Your task to perform on an android device: Open internet settings Image 0: 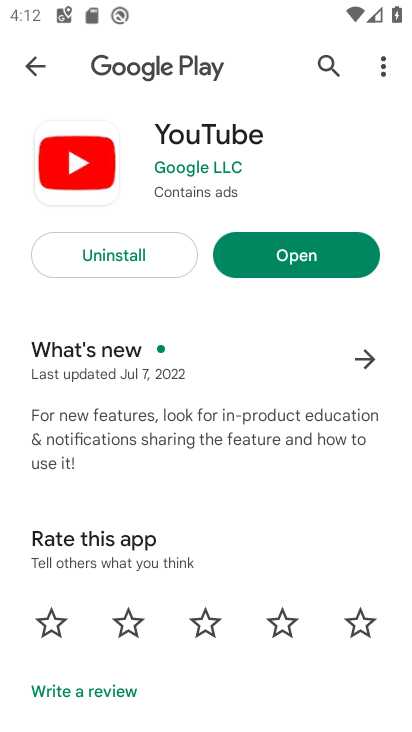
Step 0: press home button
Your task to perform on an android device: Open internet settings Image 1: 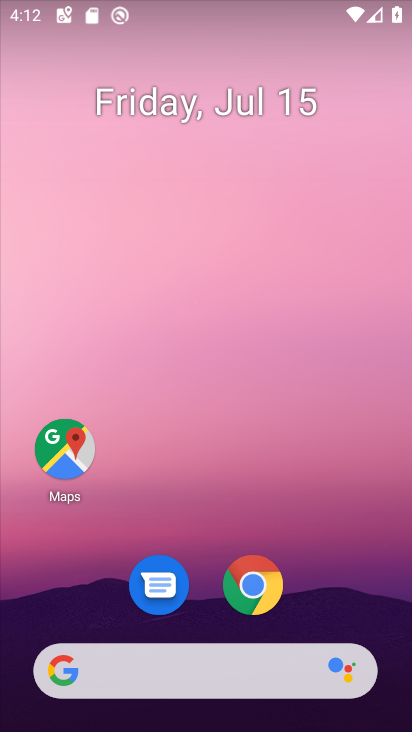
Step 1: drag from (214, 525) to (229, 9)
Your task to perform on an android device: Open internet settings Image 2: 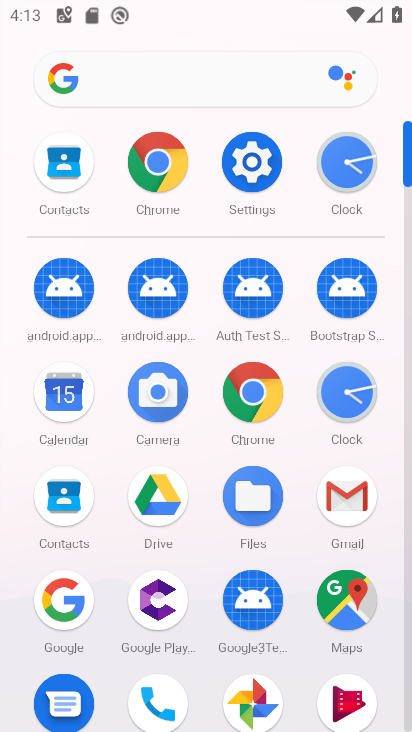
Step 2: click (250, 166)
Your task to perform on an android device: Open internet settings Image 3: 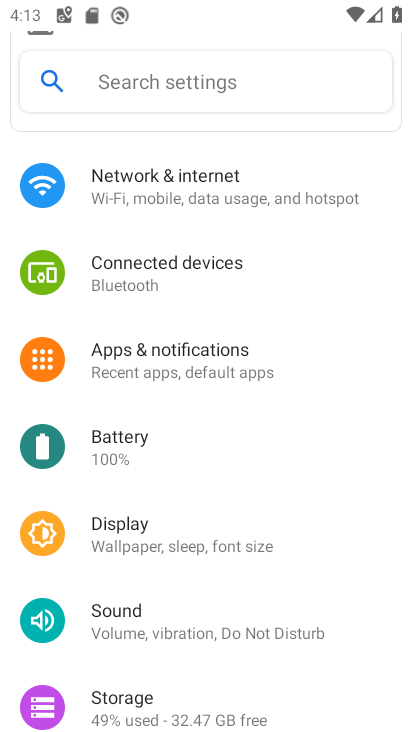
Step 3: click (254, 185)
Your task to perform on an android device: Open internet settings Image 4: 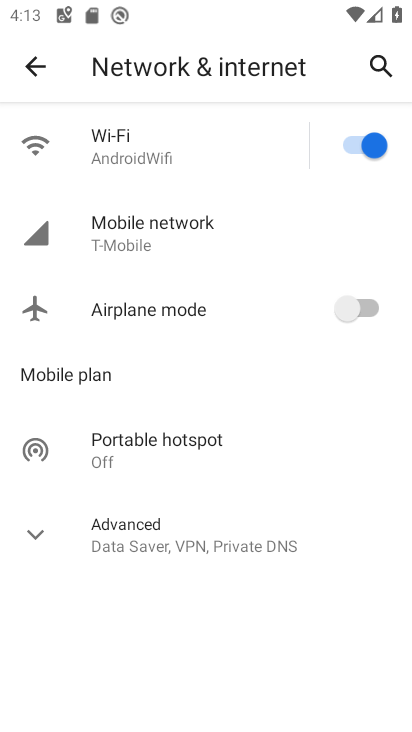
Step 4: task complete